Your task to perform on an android device: turn off wifi Image 0: 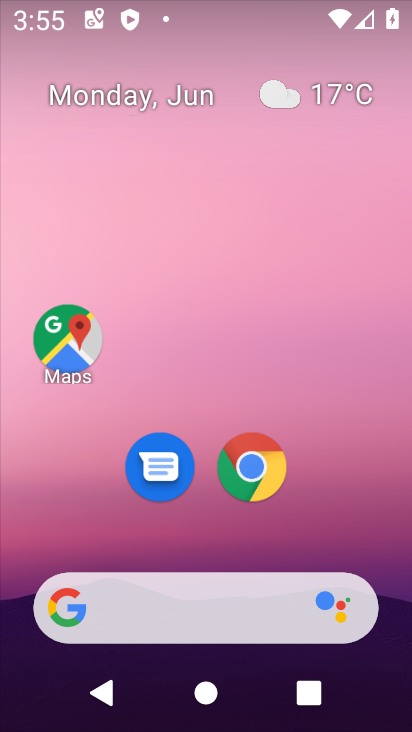
Step 0: drag from (208, 552) to (260, 22)
Your task to perform on an android device: turn off wifi Image 1: 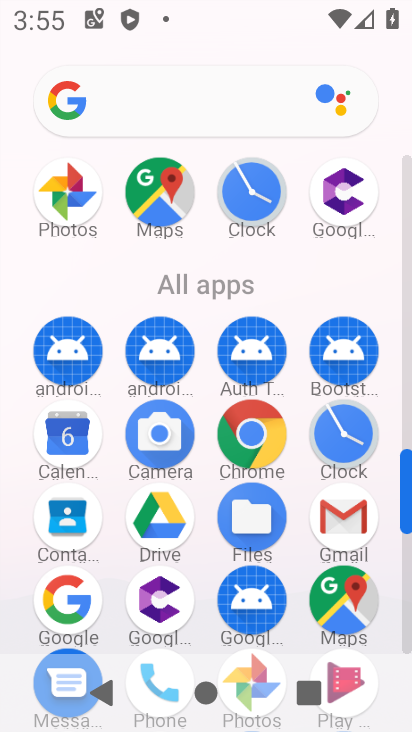
Step 1: drag from (203, 458) to (236, 194)
Your task to perform on an android device: turn off wifi Image 2: 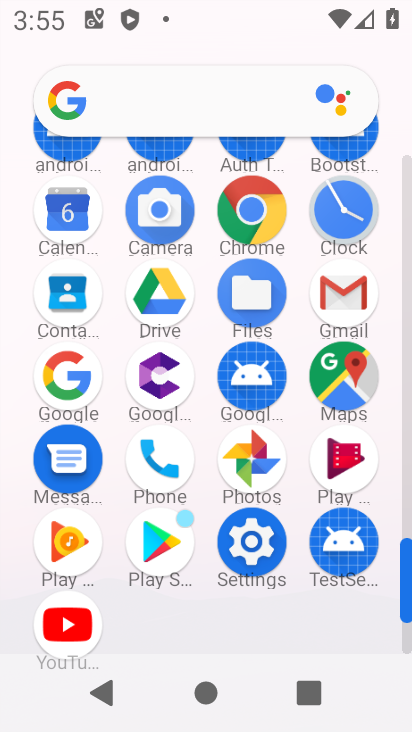
Step 2: click (255, 553)
Your task to perform on an android device: turn off wifi Image 3: 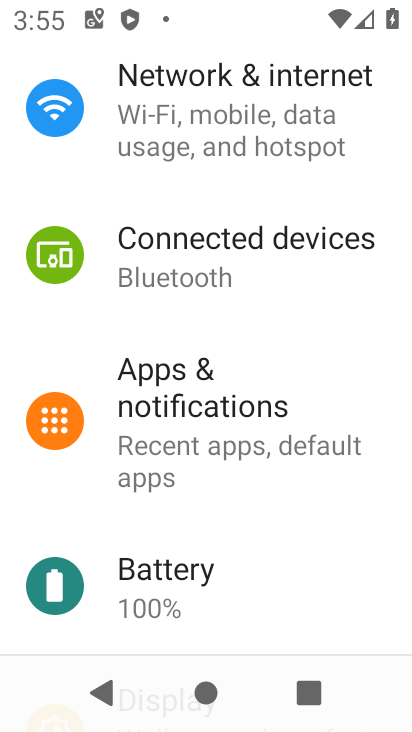
Step 3: drag from (238, 231) to (228, 305)
Your task to perform on an android device: turn off wifi Image 4: 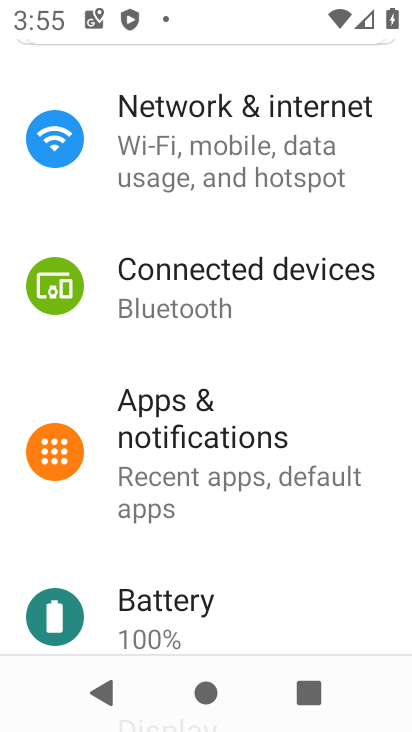
Step 4: click (222, 131)
Your task to perform on an android device: turn off wifi Image 5: 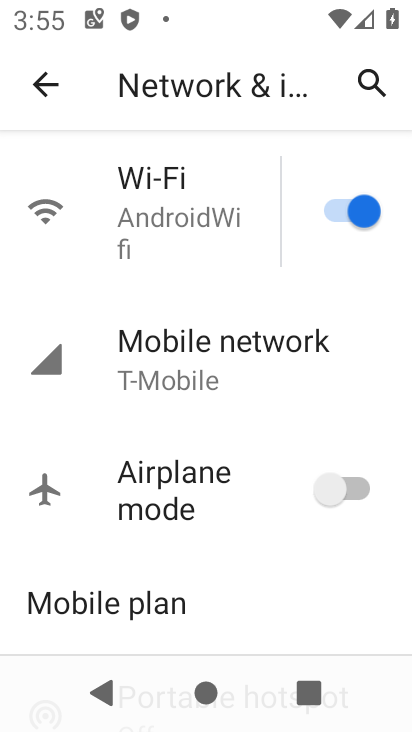
Step 5: click (315, 221)
Your task to perform on an android device: turn off wifi Image 6: 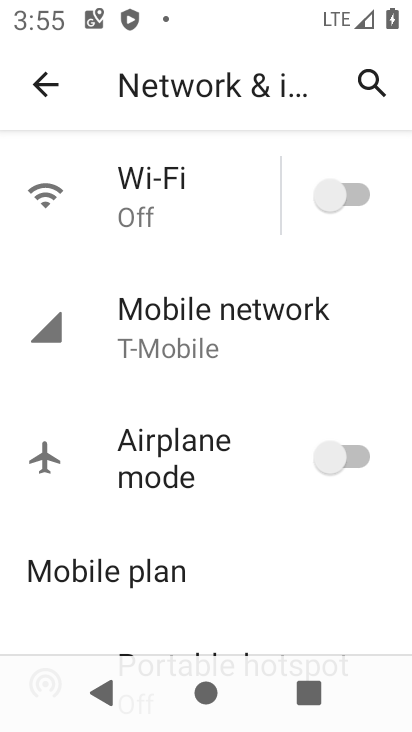
Step 6: task complete